Your task to perform on an android device: What's on my calendar today? Image 0: 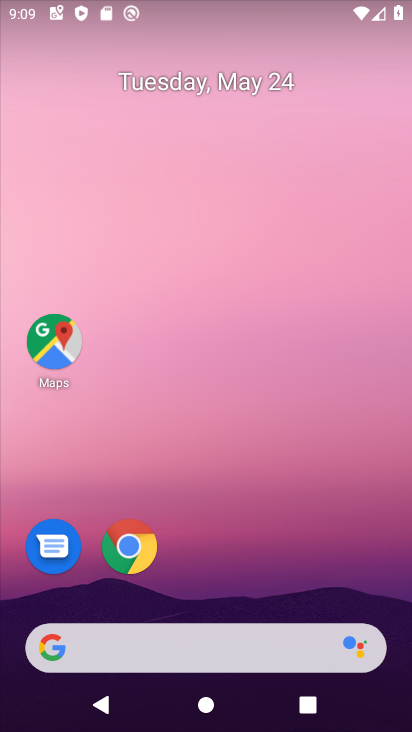
Step 0: drag from (195, 625) to (248, 69)
Your task to perform on an android device: What's on my calendar today? Image 1: 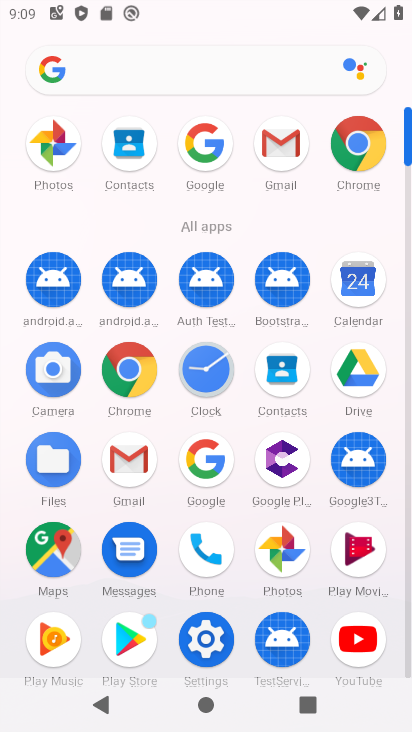
Step 1: click (355, 291)
Your task to perform on an android device: What's on my calendar today? Image 2: 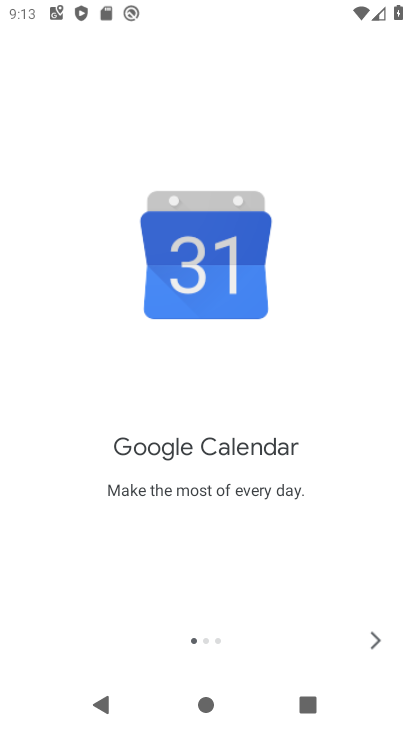
Step 2: click (374, 644)
Your task to perform on an android device: What's on my calendar today? Image 3: 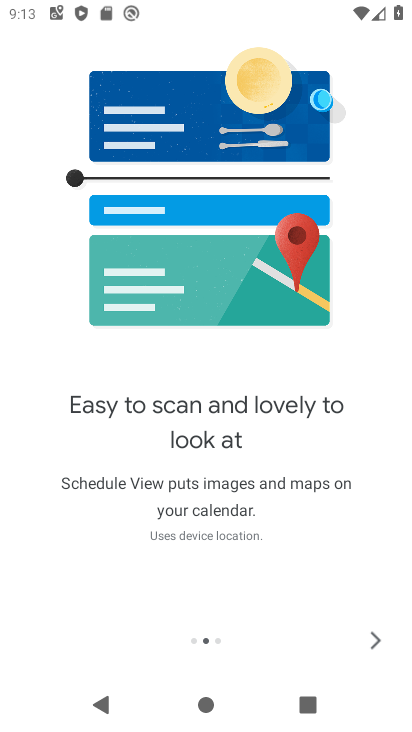
Step 3: click (374, 644)
Your task to perform on an android device: What's on my calendar today? Image 4: 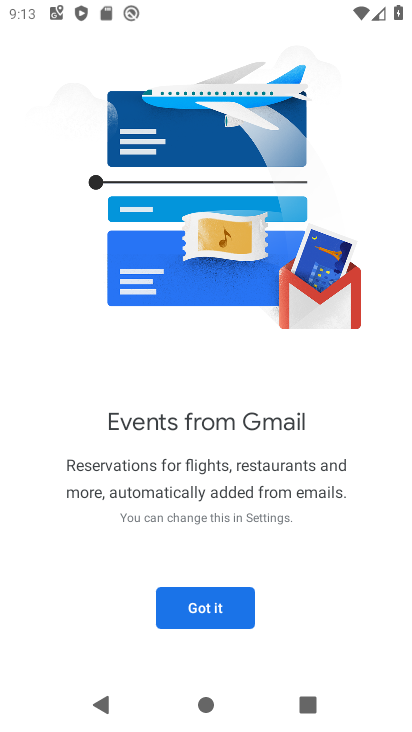
Step 4: click (213, 604)
Your task to perform on an android device: What's on my calendar today? Image 5: 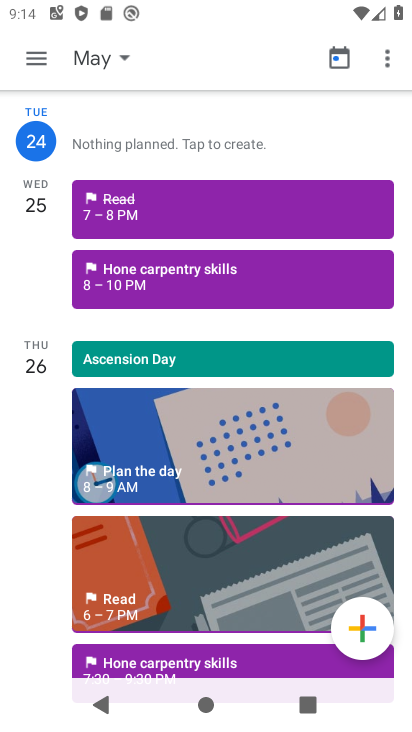
Step 5: click (125, 141)
Your task to perform on an android device: What's on my calendar today? Image 6: 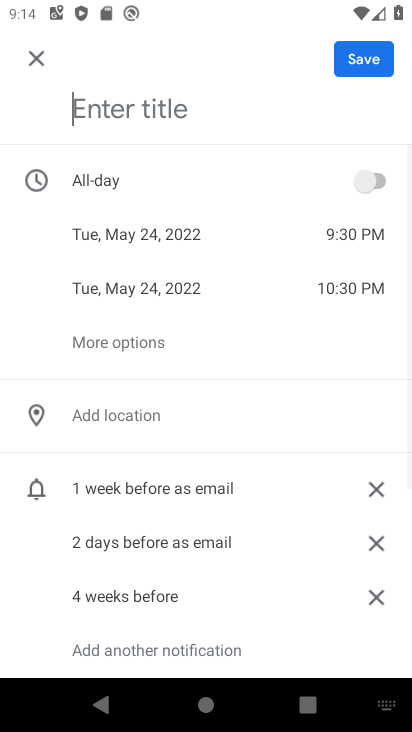
Step 6: task complete